Your task to perform on an android device: Open display settings Image 0: 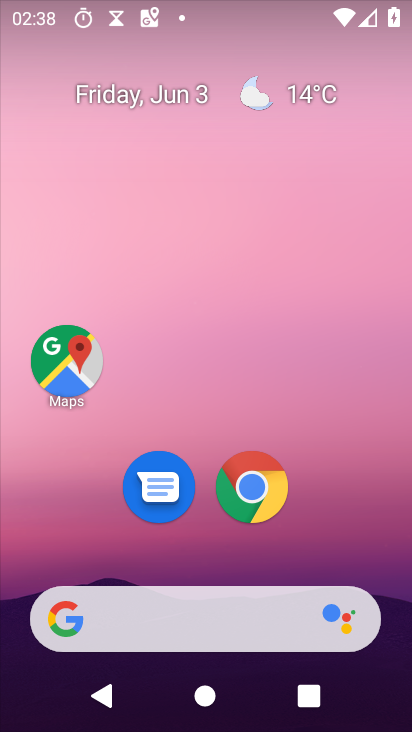
Step 0: drag from (273, 250) to (206, 19)
Your task to perform on an android device: Open display settings Image 1: 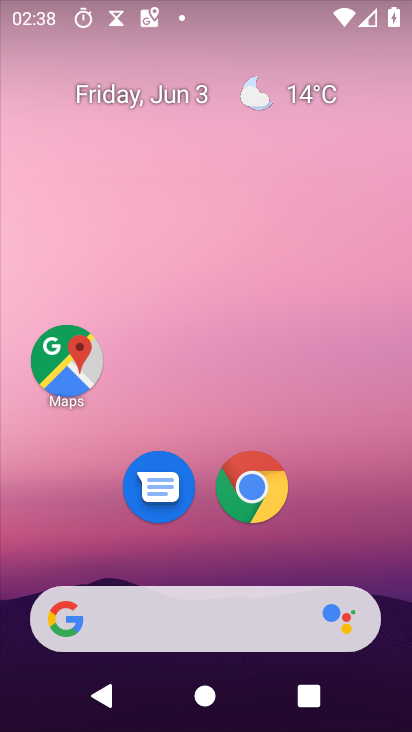
Step 1: drag from (305, 437) to (131, 10)
Your task to perform on an android device: Open display settings Image 2: 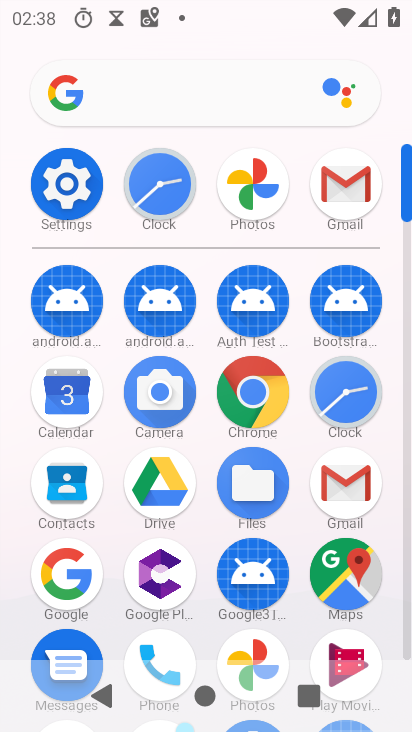
Step 2: click (59, 165)
Your task to perform on an android device: Open display settings Image 3: 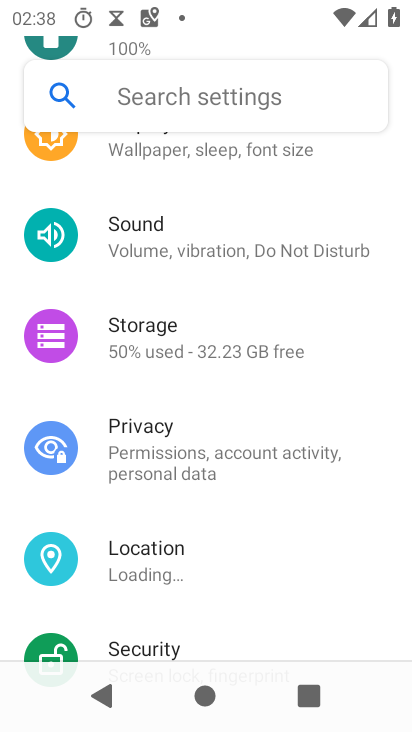
Step 3: drag from (272, 521) to (238, 165)
Your task to perform on an android device: Open display settings Image 4: 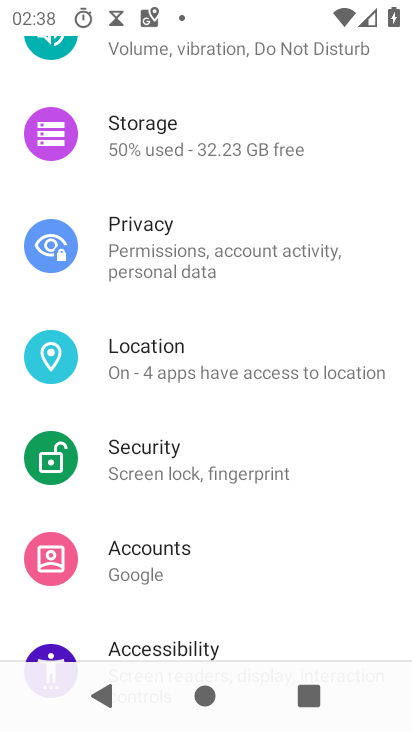
Step 4: drag from (220, 195) to (202, 674)
Your task to perform on an android device: Open display settings Image 5: 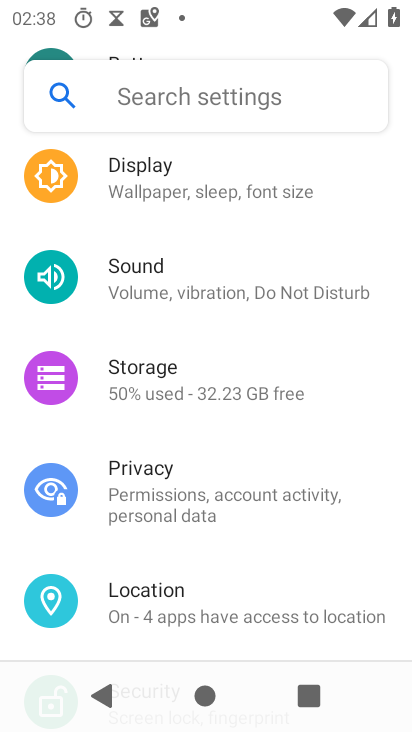
Step 5: click (208, 198)
Your task to perform on an android device: Open display settings Image 6: 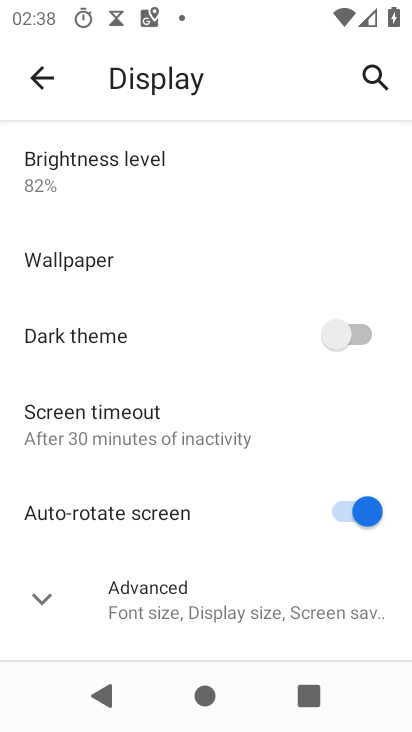
Step 6: task complete